Your task to perform on an android device: add a label to a message in the gmail app Image 0: 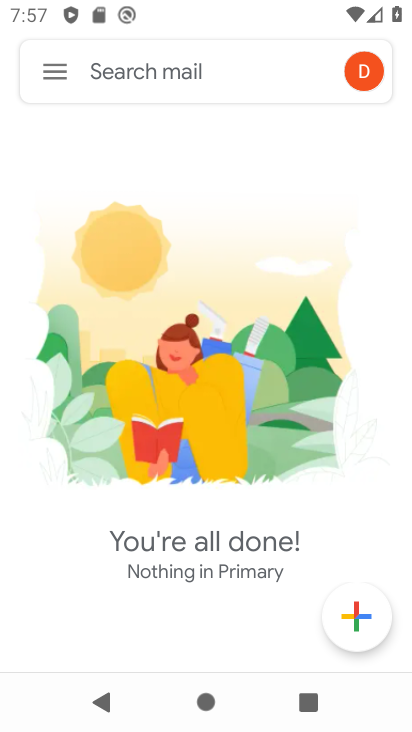
Step 0: click (36, 74)
Your task to perform on an android device: add a label to a message in the gmail app Image 1: 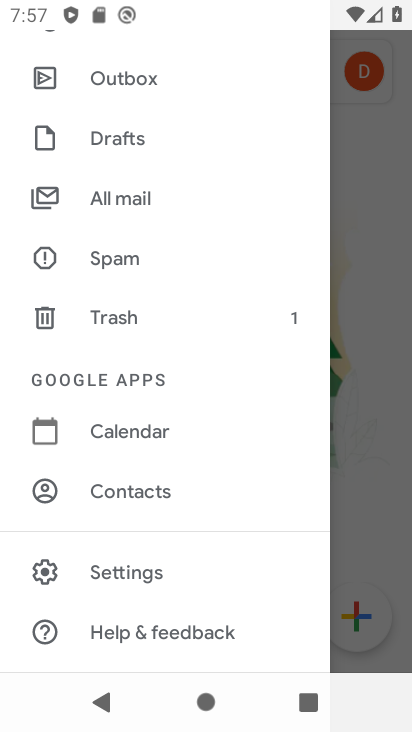
Step 1: click (160, 196)
Your task to perform on an android device: add a label to a message in the gmail app Image 2: 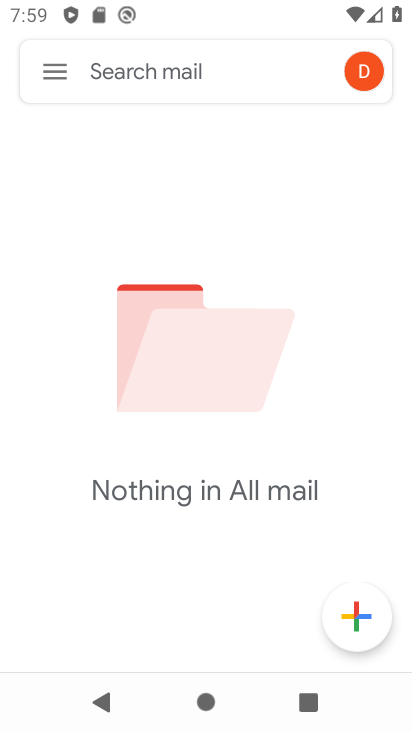
Step 2: task complete